Your task to perform on an android device: Turn on the flashlight Image 0: 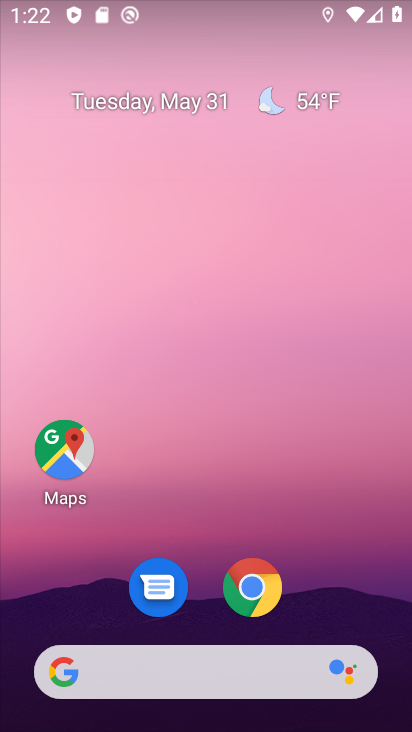
Step 0: drag from (207, 601) to (199, 10)
Your task to perform on an android device: Turn on the flashlight Image 1: 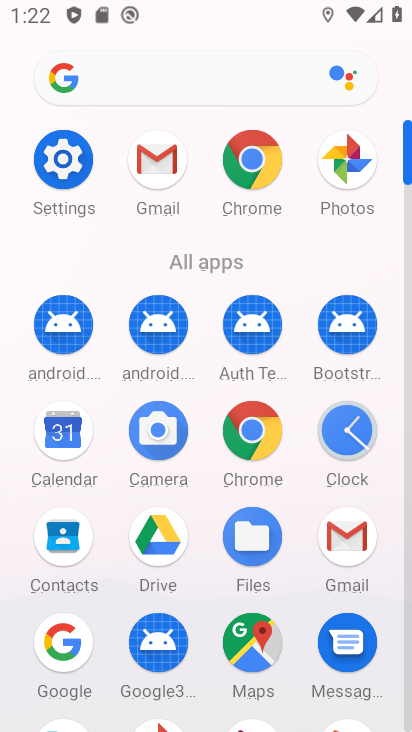
Step 1: click (67, 151)
Your task to perform on an android device: Turn on the flashlight Image 2: 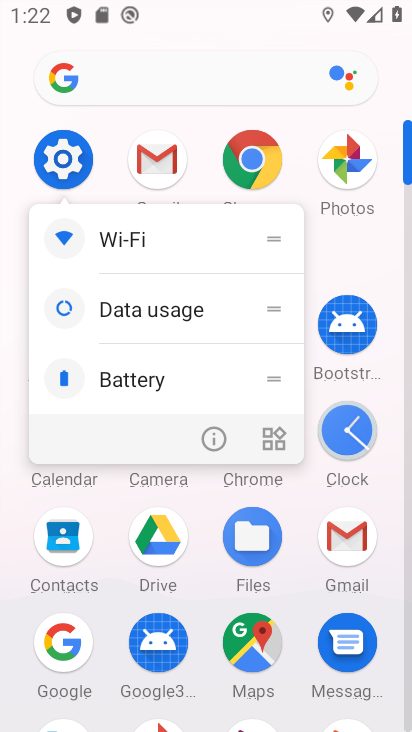
Step 2: click (219, 446)
Your task to perform on an android device: Turn on the flashlight Image 3: 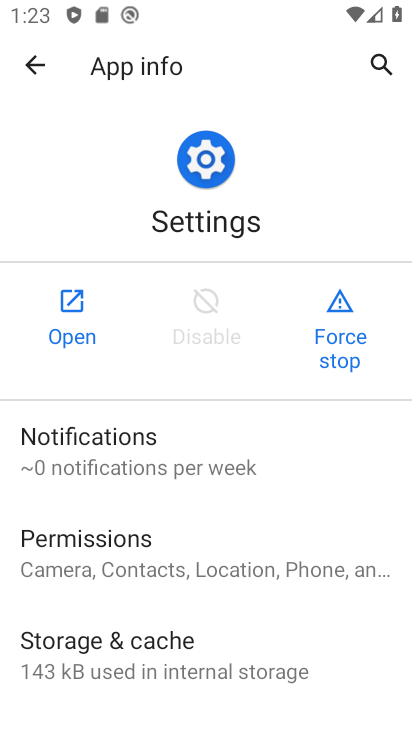
Step 3: click (99, 309)
Your task to perform on an android device: Turn on the flashlight Image 4: 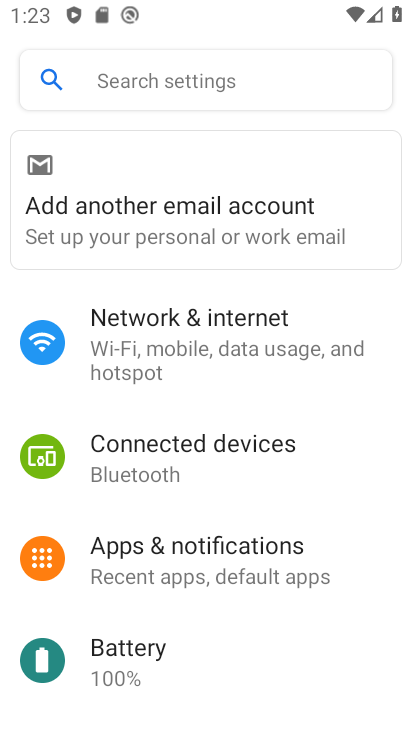
Step 4: click (93, 74)
Your task to perform on an android device: Turn on the flashlight Image 5: 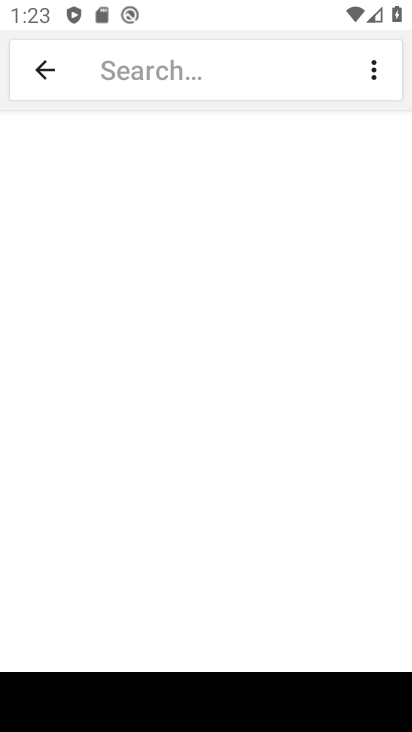
Step 5: click (96, 57)
Your task to perform on an android device: Turn on the flashlight Image 6: 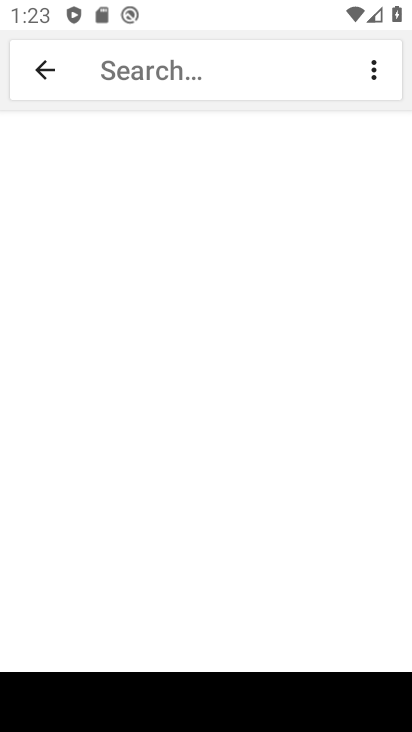
Step 6: click (96, 57)
Your task to perform on an android device: Turn on the flashlight Image 7: 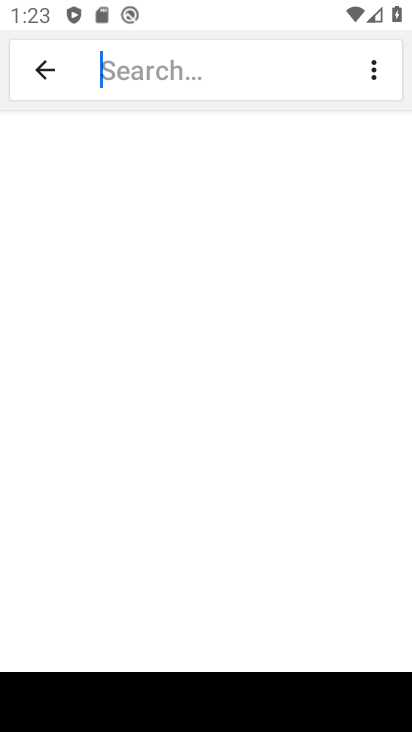
Step 7: click (153, 57)
Your task to perform on an android device: Turn on the flashlight Image 8: 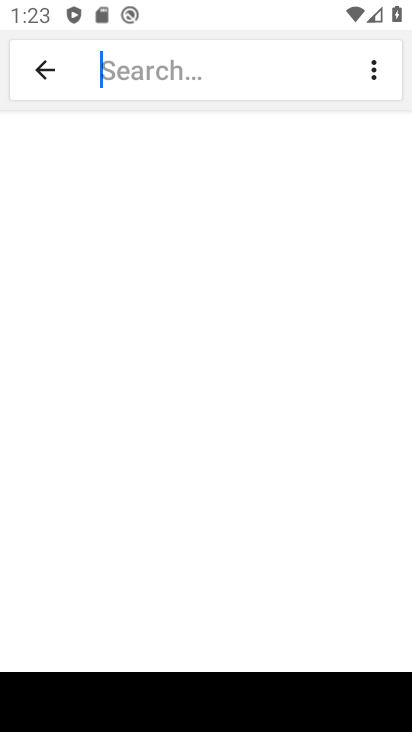
Step 8: click (151, 57)
Your task to perform on an android device: Turn on the flashlight Image 9: 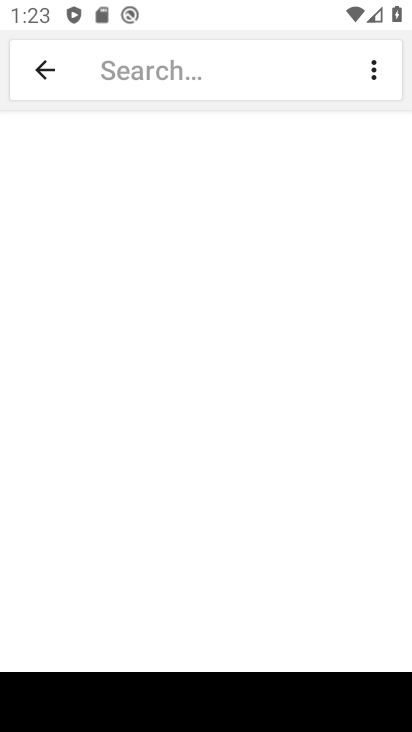
Step 9: click (156, 69)
Your task to perform on an android device: Turn on the flashlight Image 10: 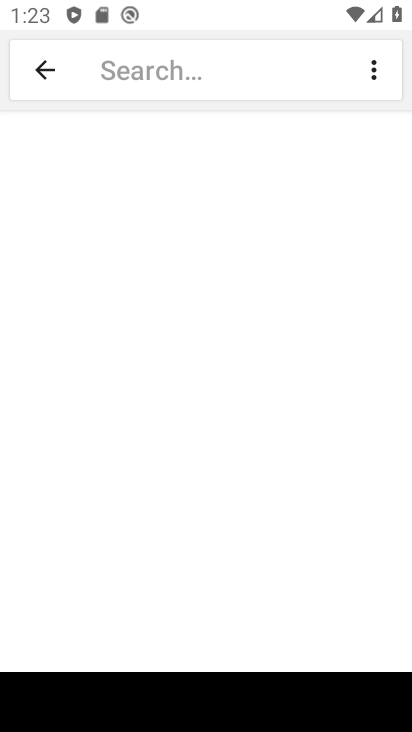
Step 10: type " flashlight"
Your task to perform on an android device: Turn on the flashlight Image 11: 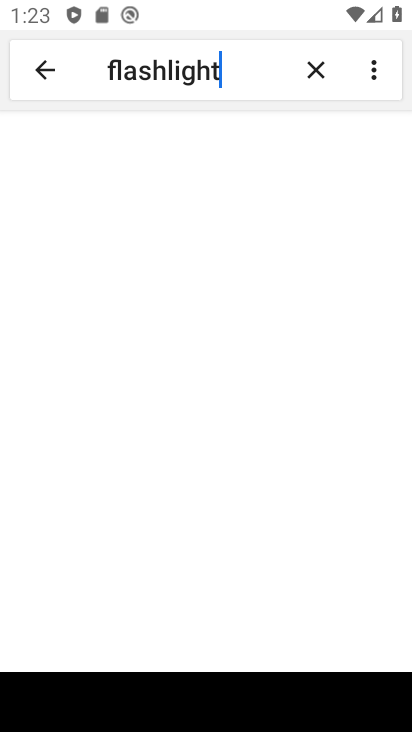
Step 11: type ""
Your task to perform on an android device: Turn on the flashlight Image 12: 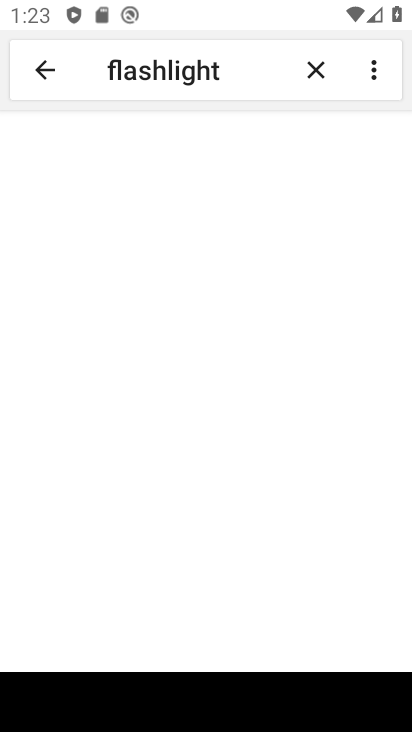
Step 12: click (203, 220)
Your task to perform on an android device: Turn on the flashlight Image 13: 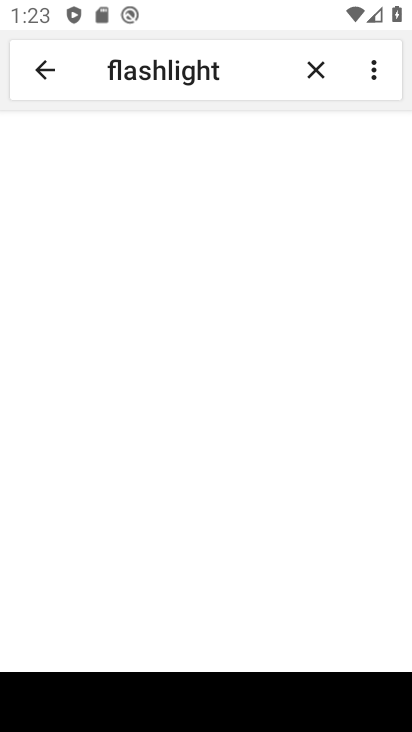
Step 13: click (307, 261)
Your task to perform on an android device: Turn on the flashlight Image 14: 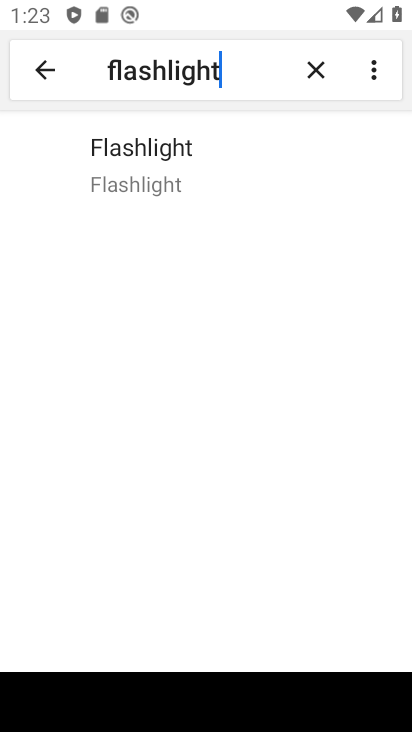
Step 14: click (220, 182)
Your task to perform on an android device: Turn on the flashlight Image 15: 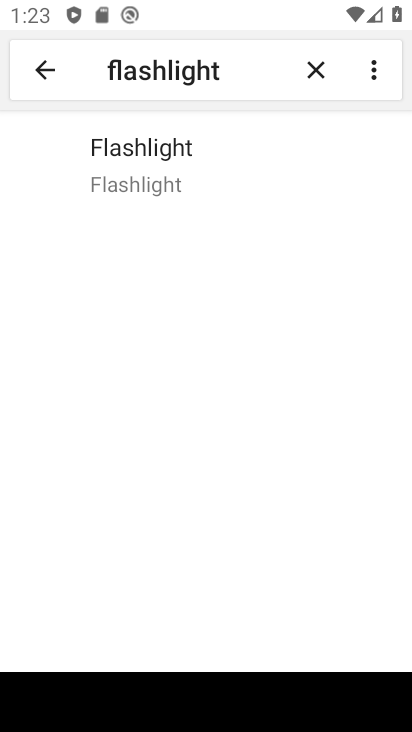
Step 15: task complete